Your task to perform on an android device: toggle priority inbox in the gmail app Image 0: 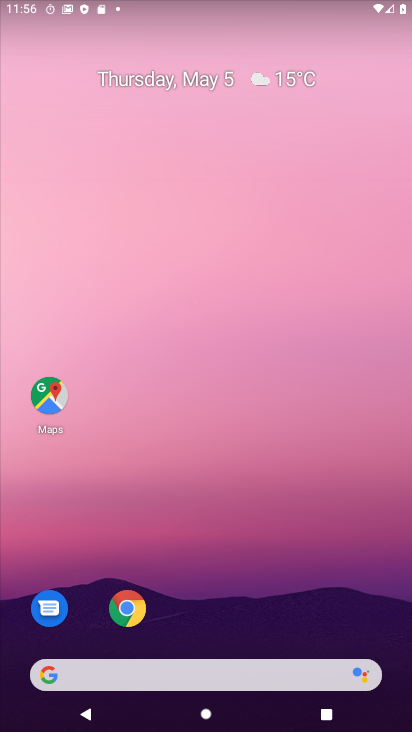
Step 0: drag from (252, 593) to (234, 51)
Your task to perform on an android device: toggle priority inbox in the gmail app Image 1: 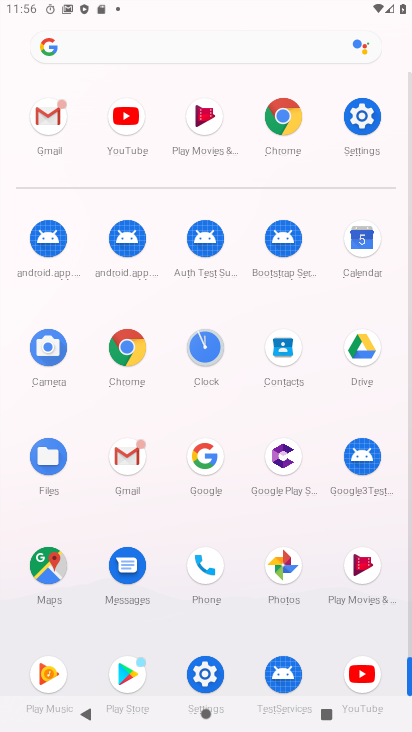
Step 1: drag from (181, 420) to (176, 283)
Your task to perform on an android device: toggle priority inbox in the gmail app Image 2: 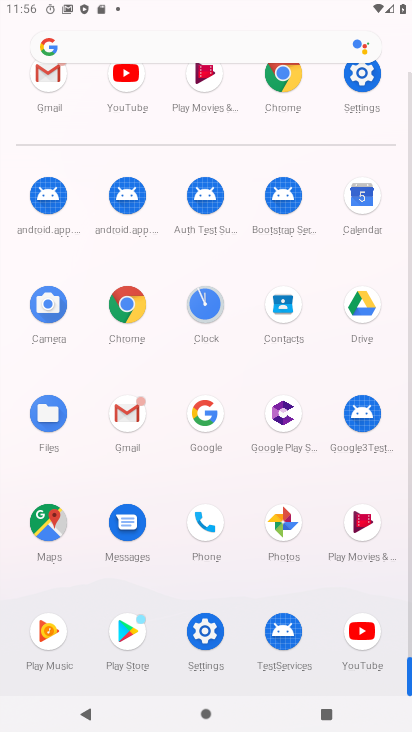
Step 2: click (127, 409)
Your task to perform on an android device: toggle priority inbox in the gmail app Image 3: 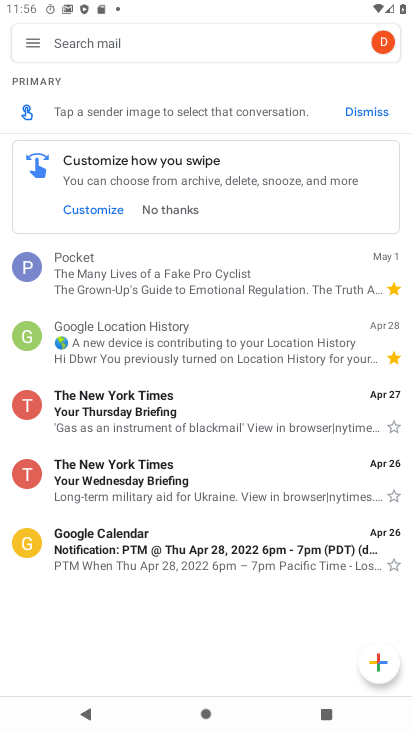
Step 3: click (39, 41)
Your task to perform on an android device: toggle priority inbox in the gmail app Image 4: 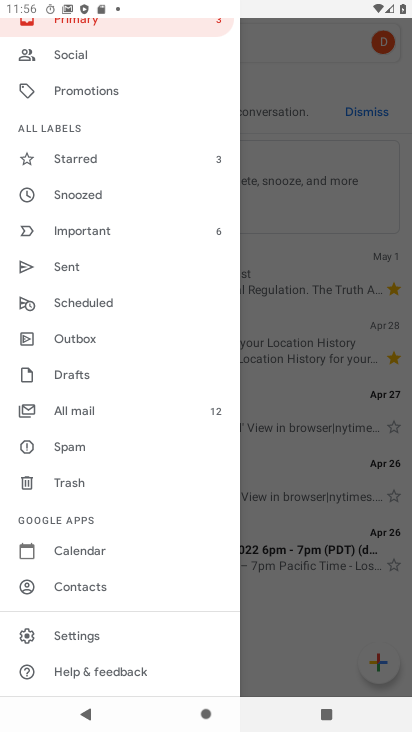
Step 4: click (86, 638)
Your task to perform on an android device: toggle priority inbox in the gmail app Image 5: 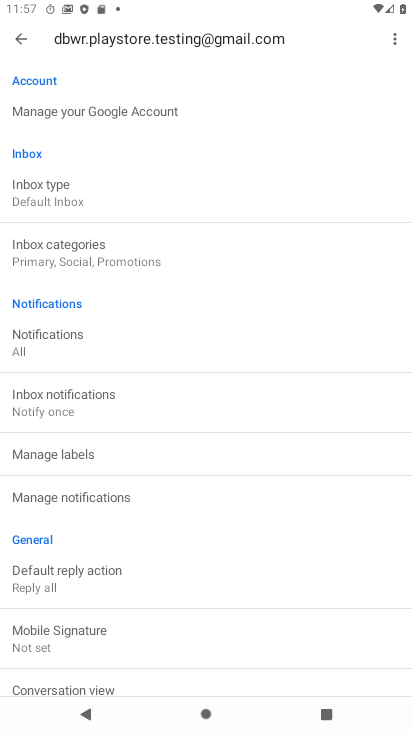
Step 5: click (59, 203)
Your task to perform on an android device: toggle priority inbox in the gmail app Image 6: 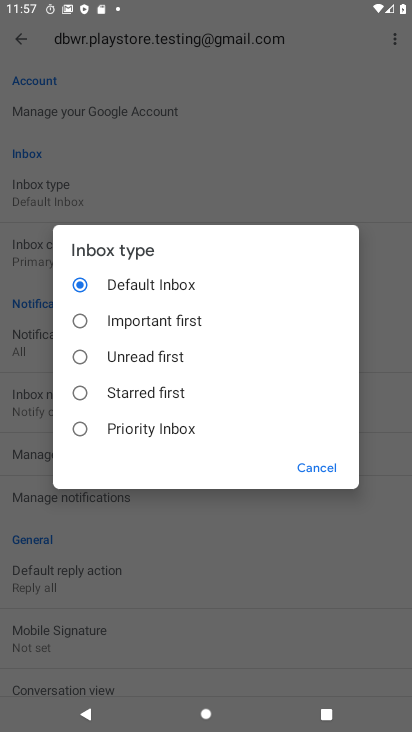
Step 6: click (80, 425)
Your task to perform on an android device: toggle priority inbox in the gmail app Image 7: 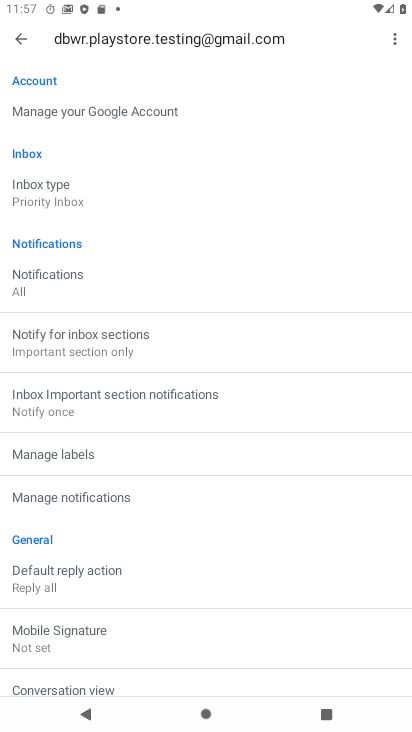
Step 7: task complete